Your task to perform on an android device: Go to sound settings Image 0: 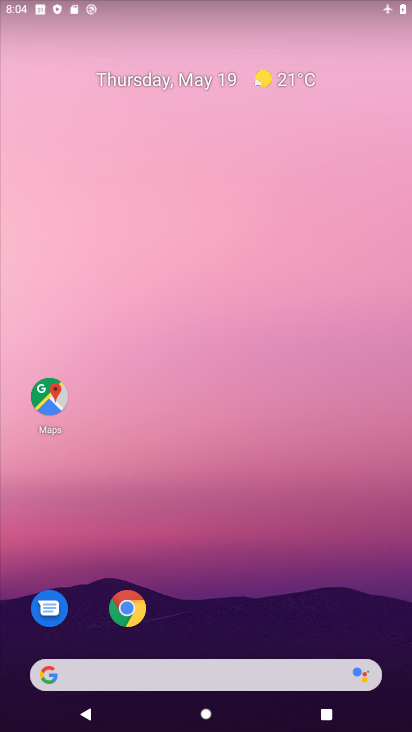
Step 0: drag from (292, 531) to (223, 190)
Your task to perform on an android device: Go to sound settings Image 1: 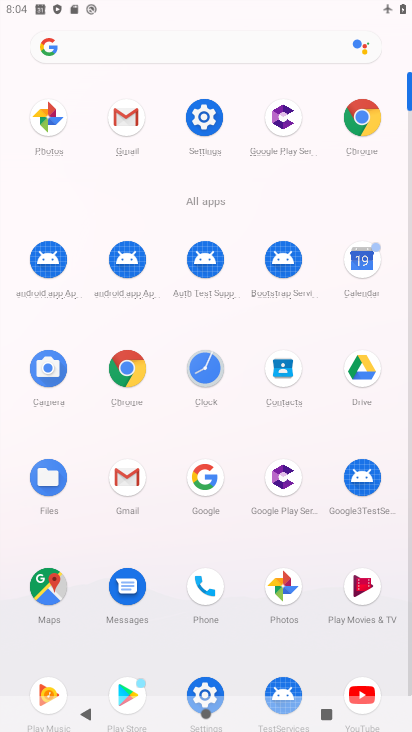
Step 1: click (201, 109)
Your task to perform on an android device: Go to sound settings Image 2: 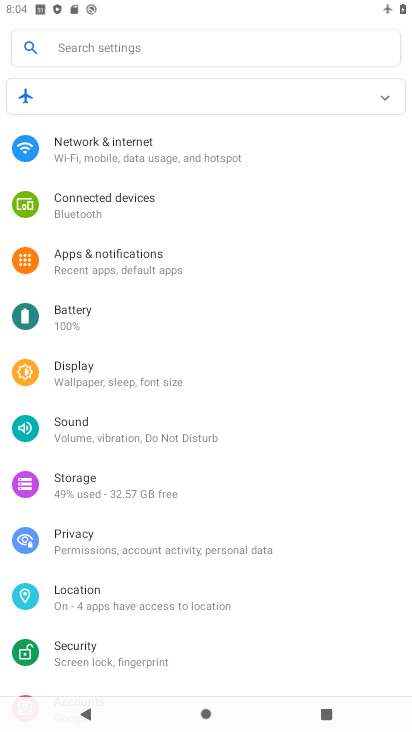
Step 2: click (78, 423)
Your task to perform on an android device: Go to sound settings Image 3: 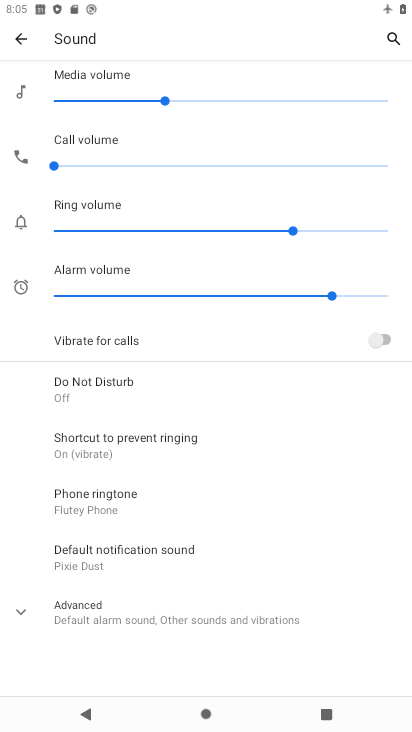
Step 3: task complete